Your task to perform on an android device: Go to CNN.com Image 0: 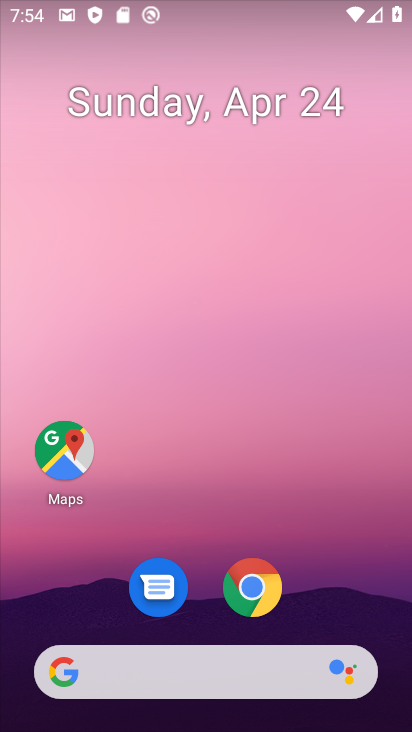
Step 0: drag from (344, 573) to (310, 187)
Your task to perform on an android device: Go to CNN.com Image 1: 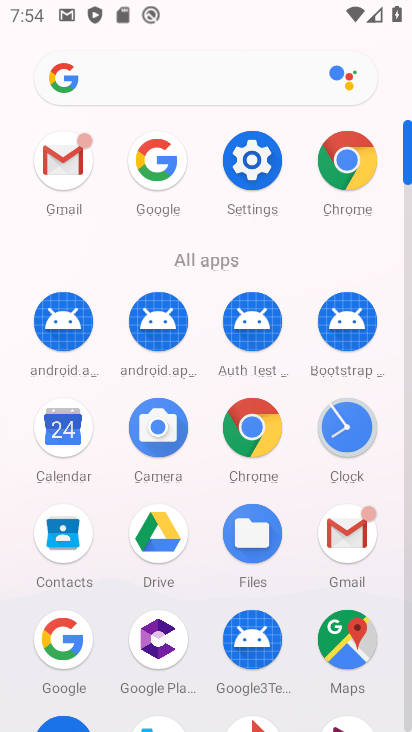
Step 1: click (249, 434)
Your task to perform on an android device: Go to CNN.com Image 2: 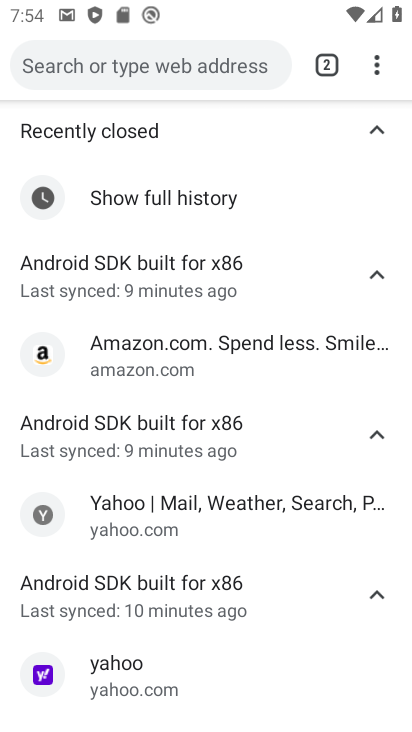
Step 2: click (157, 57)
Your task to perform on an android device: Go to CNN.com Image 3: 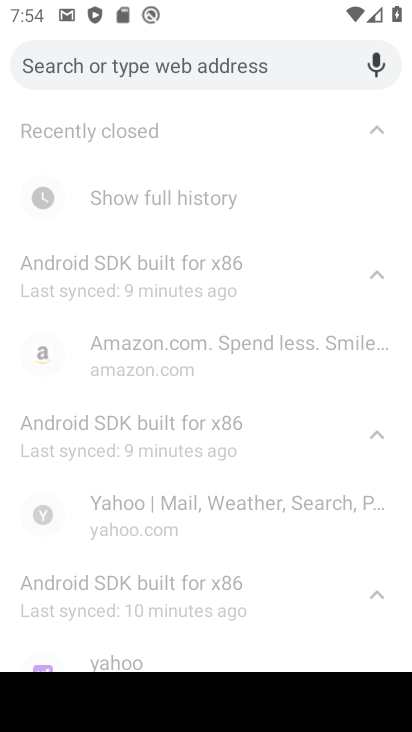
Step 3: type "cnn.com"
Your task to perform on an android device: Go to CNN.com Image 4: 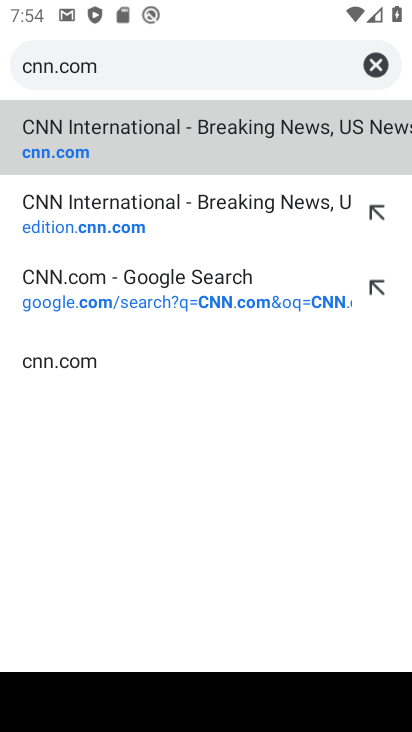
Step 4: click (112, 143)
Your task to perform on an android device: Go to CNN.com Image 5: 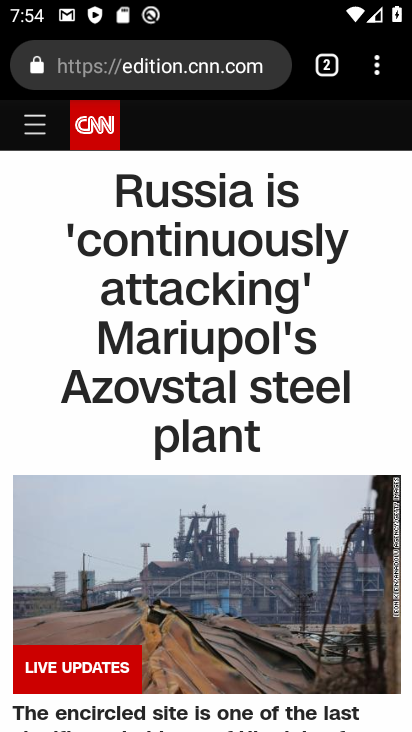
Step 5: task complete